Your task to perform on an android device: open a bookmark in the chrome app Image 0: 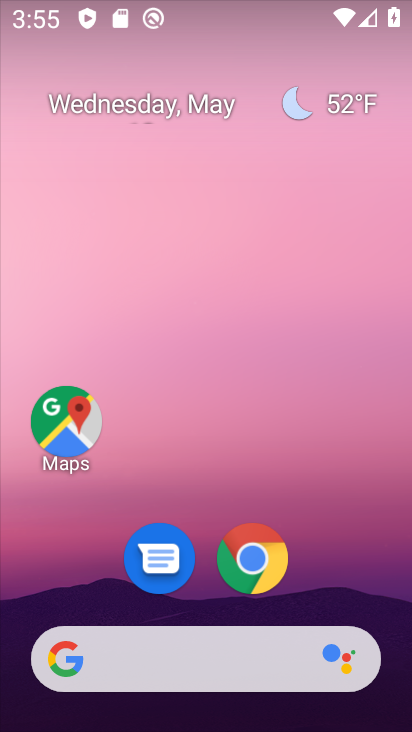
Step 0: click (270, 546)
Your task to perform on an android device: open a bookmark in the chrome app Image 1: 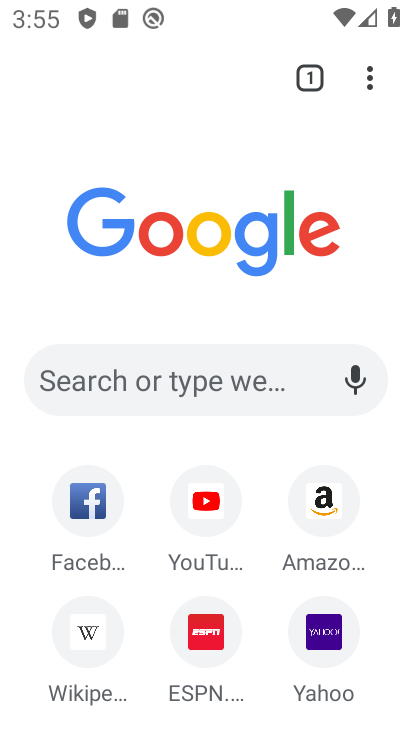
Step 1: task complete